Your task to perform on an android device: turn off notifications in google photos Image 0: 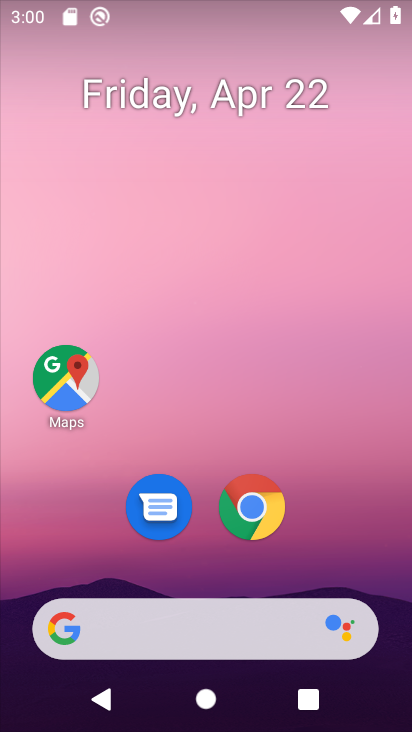
Step 0: drag from (136, 582) to (253, 131)
Your task to perform on an android device: turn off notifications in google photos Image 1: 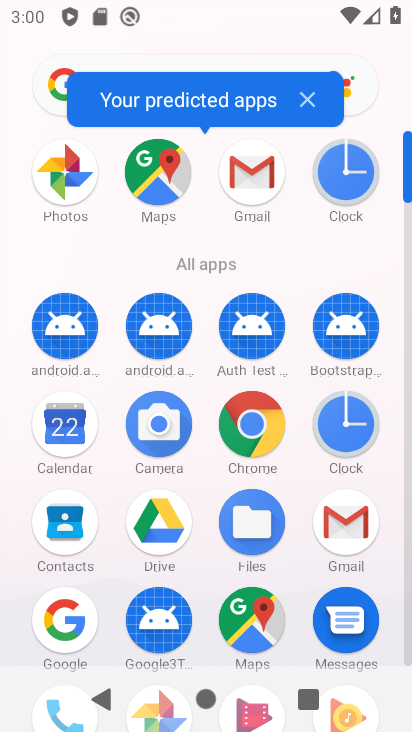
Step 1: click (63, 182)
Your task to perform on an android device: turn off notifications in google photos Image 2: 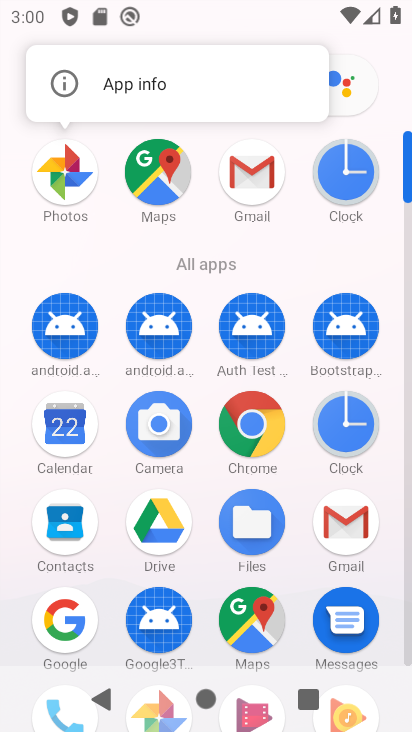
Step 2: click (63, 182)
Your task to perform on an android device: turn off notifications in google photos Image 3: 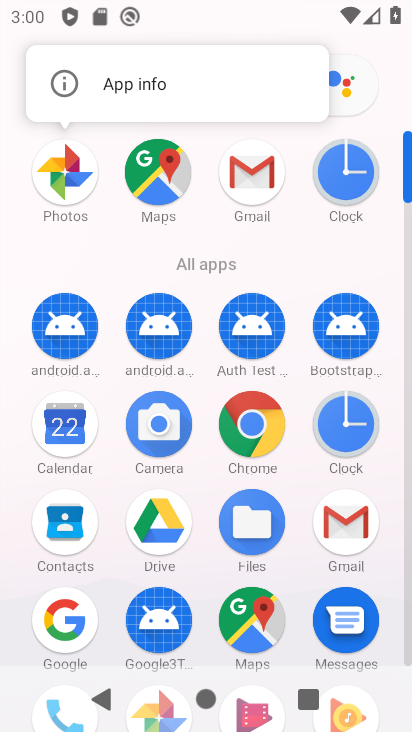
Step 3: click (63, 182)
Your task to perform on an android device: turn off notifications in google photos Image 4: 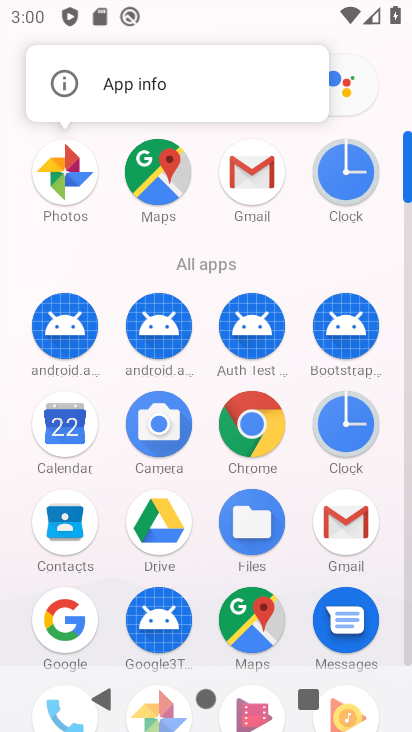
Step 4: click (70, 176)
Your task to perform on an android device: turn off notifications in google photos Image 5: 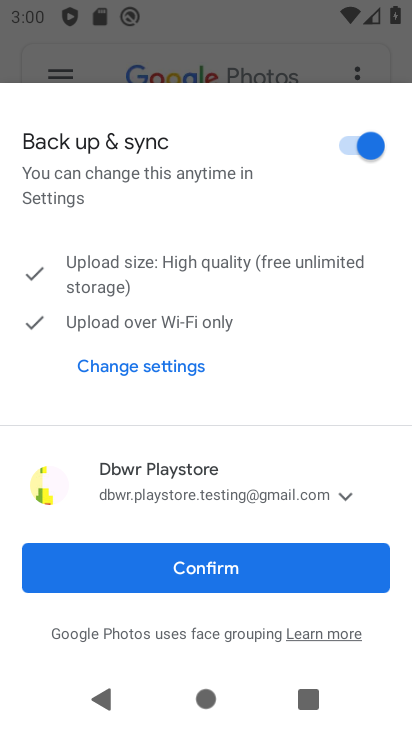
Step 5: click (193, 569)
Your task to perform on an android device: turn off notifications in google photos Image 6: 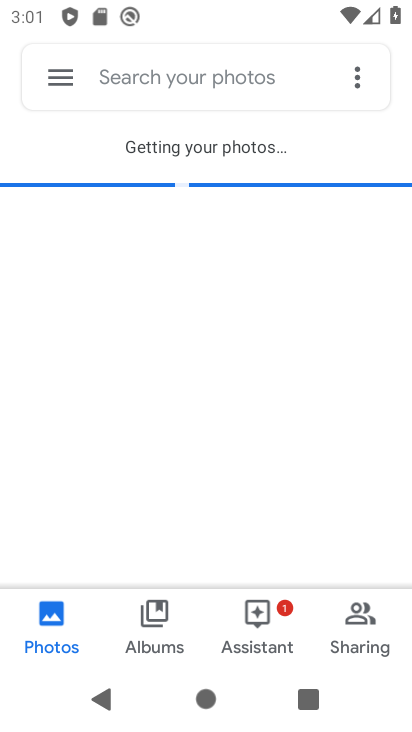
Step 6: click (65, 82)
Your task to perform on an android device: turn off notifications in google photos Image 7: 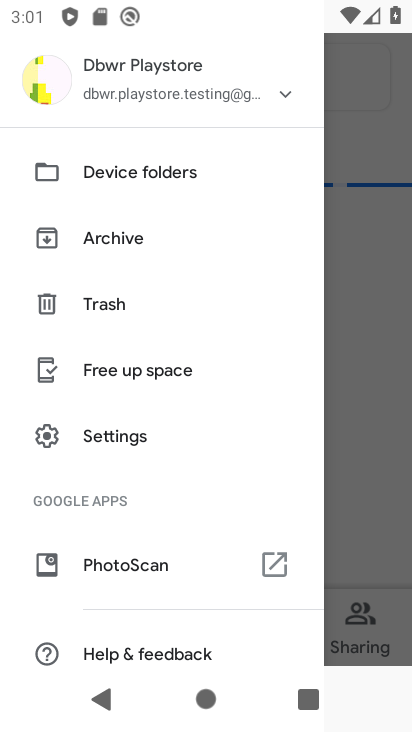
Step 7: click (124, 441)
Your task to perform on an android device: turn off notifications in google photos Image 8: 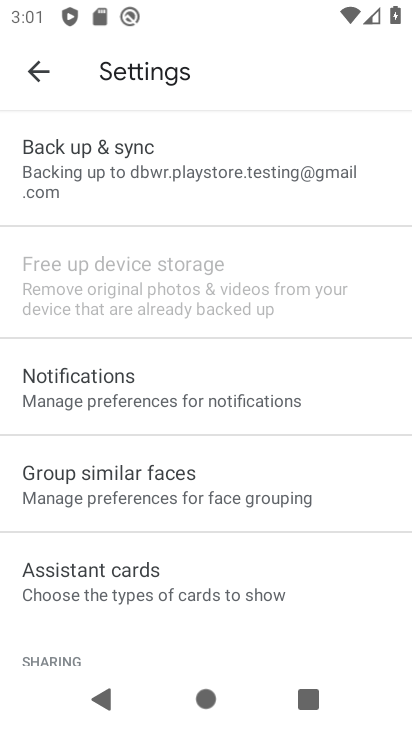
Step 8: click (111, 396)
Your task to perform on an android device: turn off notifications in google photos Image 9: 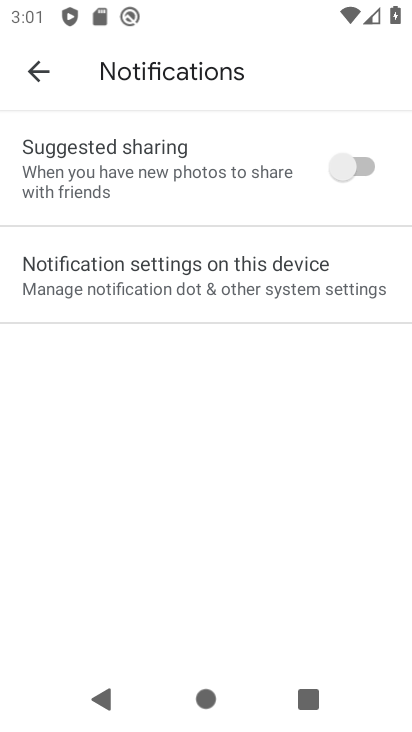
Step 9: click (168, 279)
Your task to perform on an android device: turn off notifications in google photos Image 10: 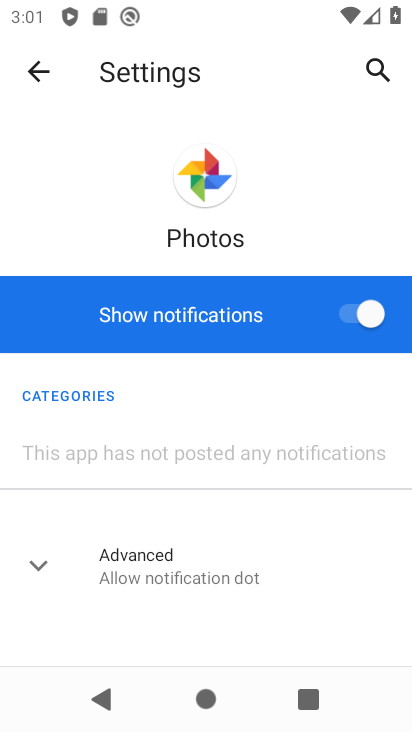
Step 10: click (345, 318)
Your task to perform on an android device: turn off notifications in google photos Image 11: 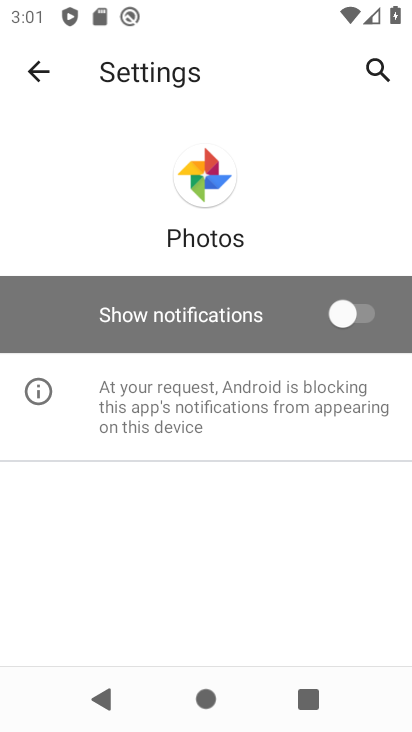
Step 11: task complete